Your task to perform on an android device: turn notification dots on Image 0: 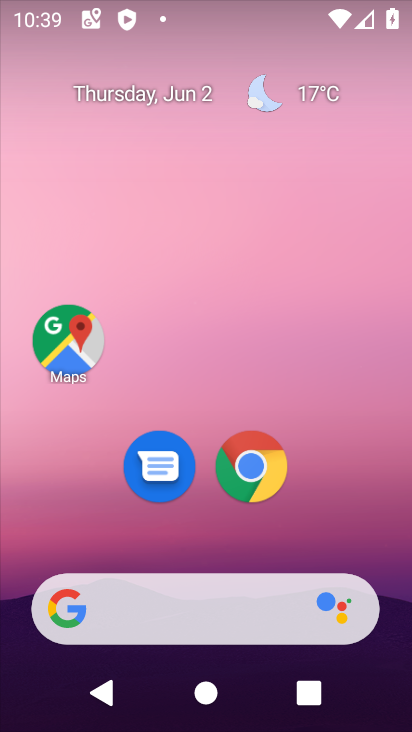
Step 0: drag from (335, 558) to (346, 302)
Your task to perform on an android device: turn notification dots on Image 1: 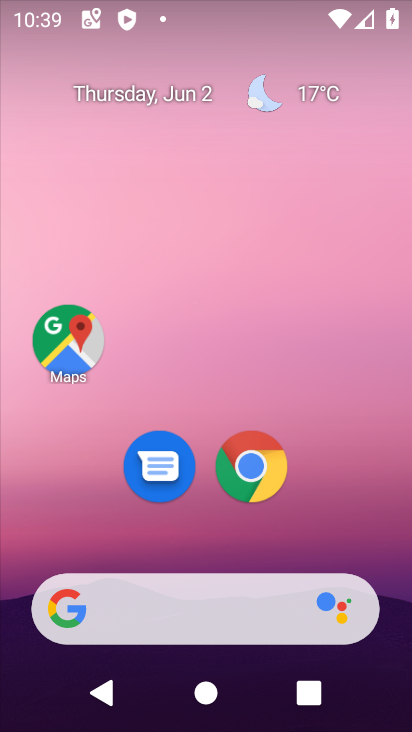
Step 1: drag from (270, 573) to (205, 255)
Your task to perform on an android device: turn notification dots on Image 2: 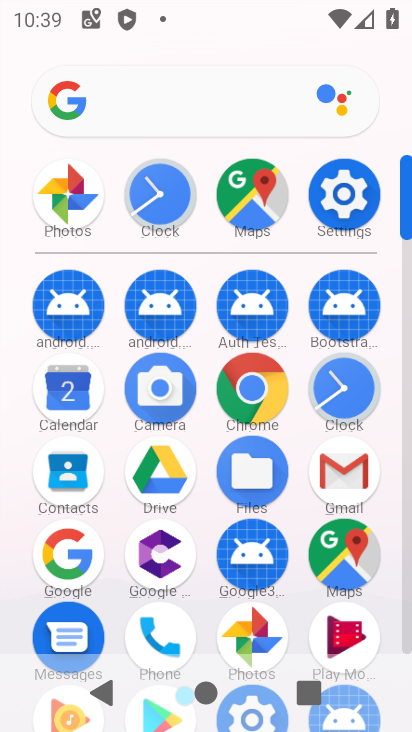
Step 2: click (339, 182)
Your task to perform on an android device: turn notification dots on Image 3: 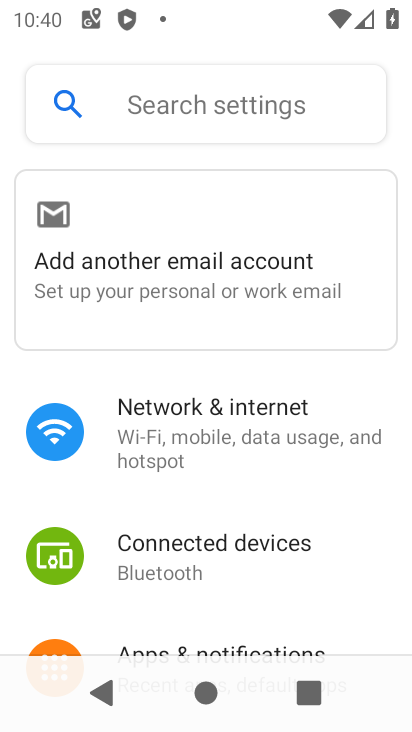
Step 3: click (285, 97)
Your task to perform on an android device: turn notification dots on Image 4: 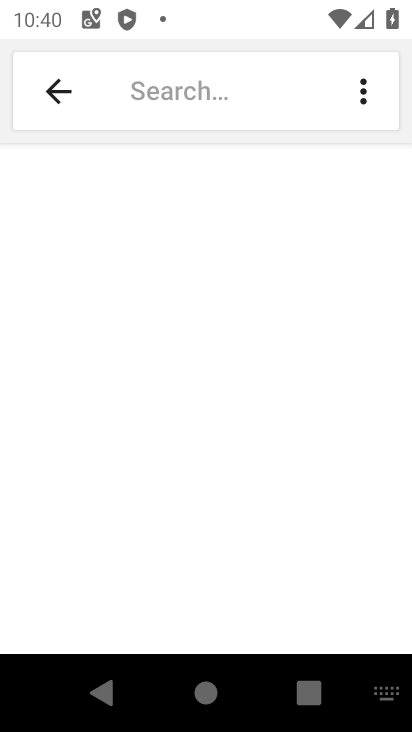
Step 4: type "notification dots "
Your task to perform on an android device: turn notification dots on Image 5: 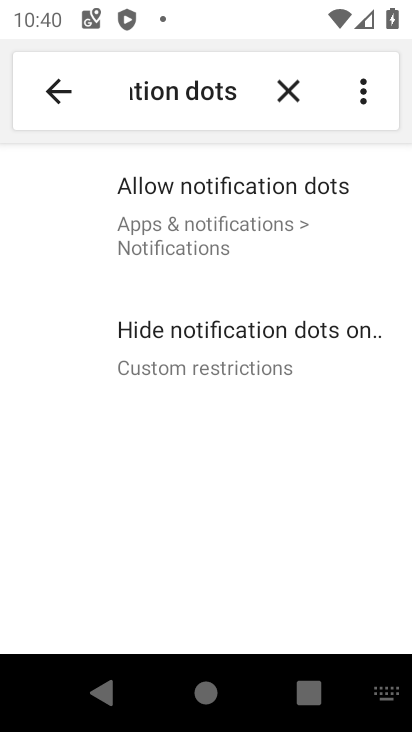
Step 5: click (187, 191)
Your task to perform on an android device: turn notification dots on Image 6: 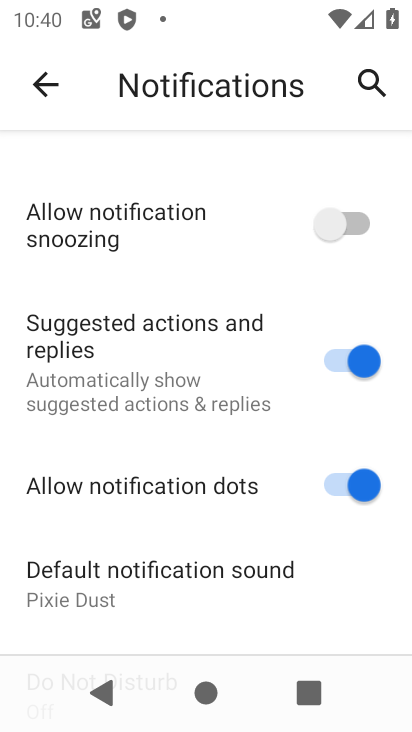
Step 6: task complete